Your task to perform on an android device: Look up the best selling books on Goodreads. Image 0: 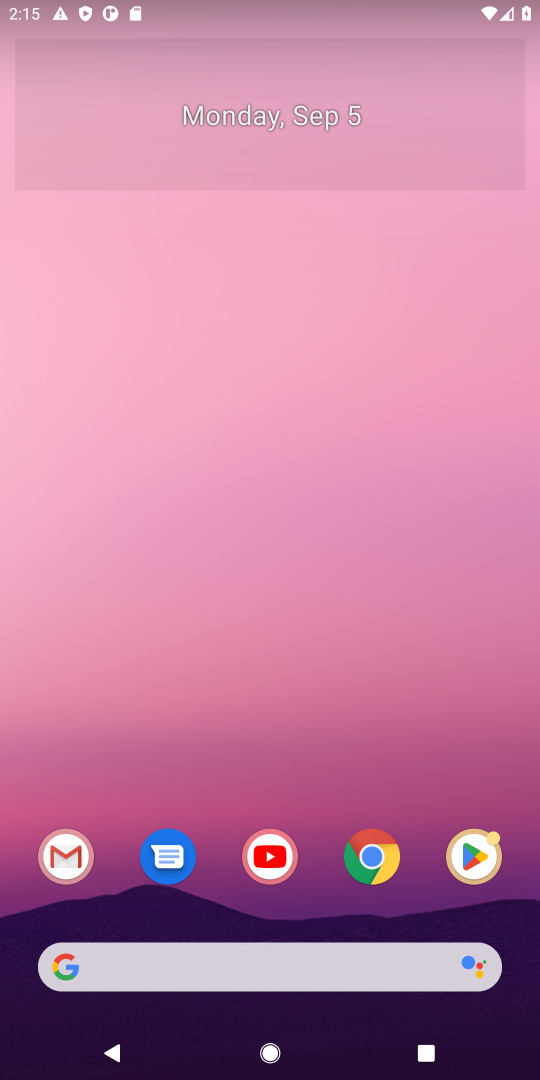
Step 0: press home button
Your task to perform on an android device: Look up the best selling books on Goodreads. Image 1: 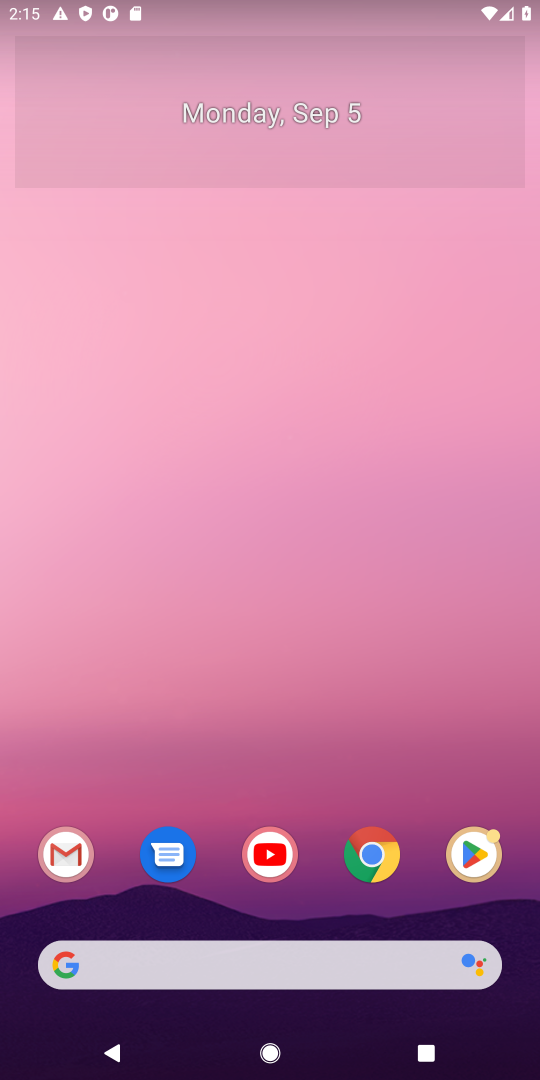
Step 1: click (336, 957)
Your task to perform on an android device: Look up the best selling books on Goodreads. Image 2: 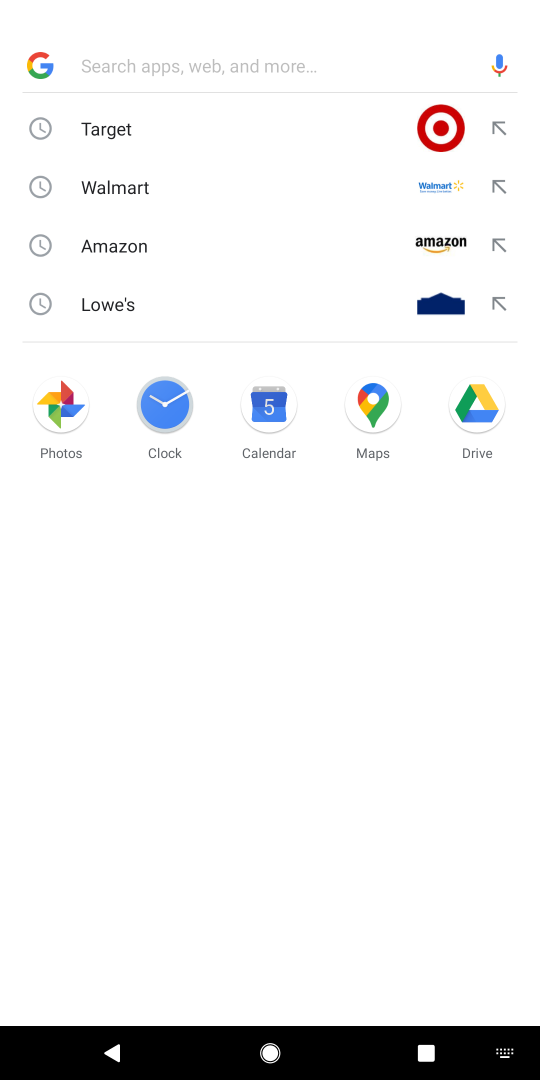
Step 2: type "goodreads"
Your task to perform on an android device: Look up the best selling books on Goodreads. Image 3: 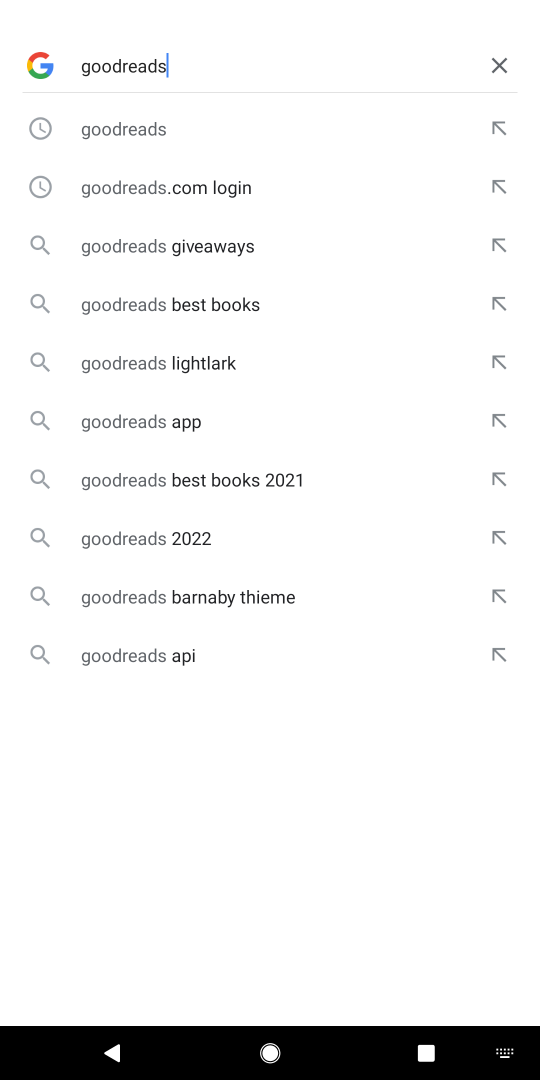
Step 3: press enter
Your task to perform on an android device: Look up the best selling books on Goodreads. Image 4: 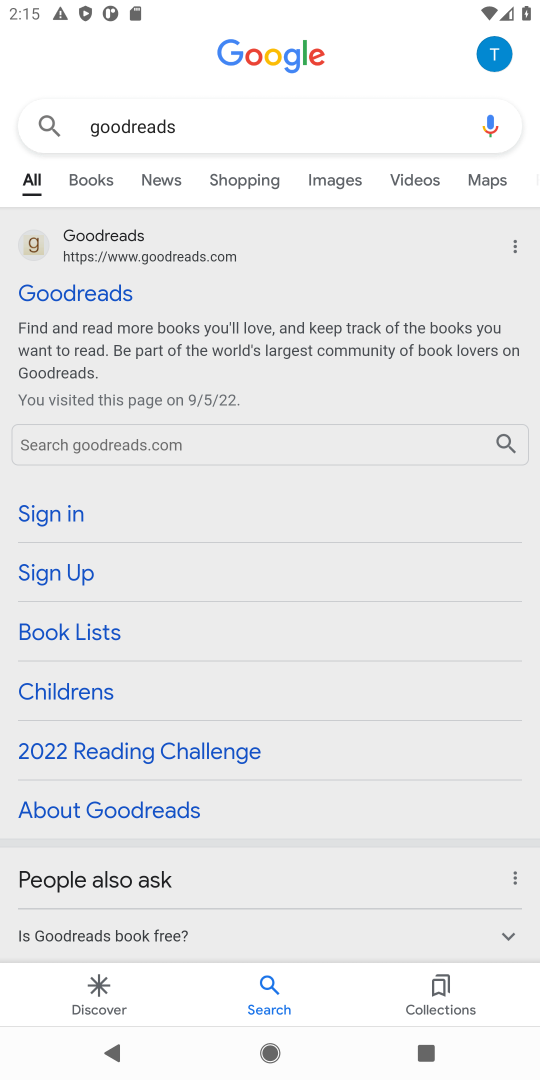
Step 4: click (94, 290)
Your task to perform on an android device: Look up the best selling books on Goodreads. Image 5: 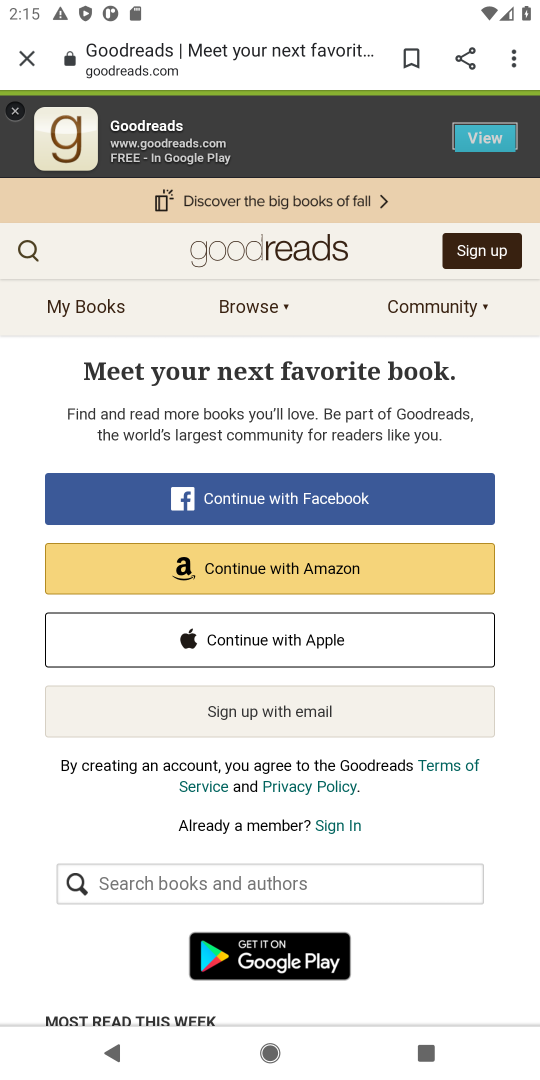
Step 5: click (51, 252)
Your task to perform on an android device: Look up the best selling books on Goodreads. Image 6: 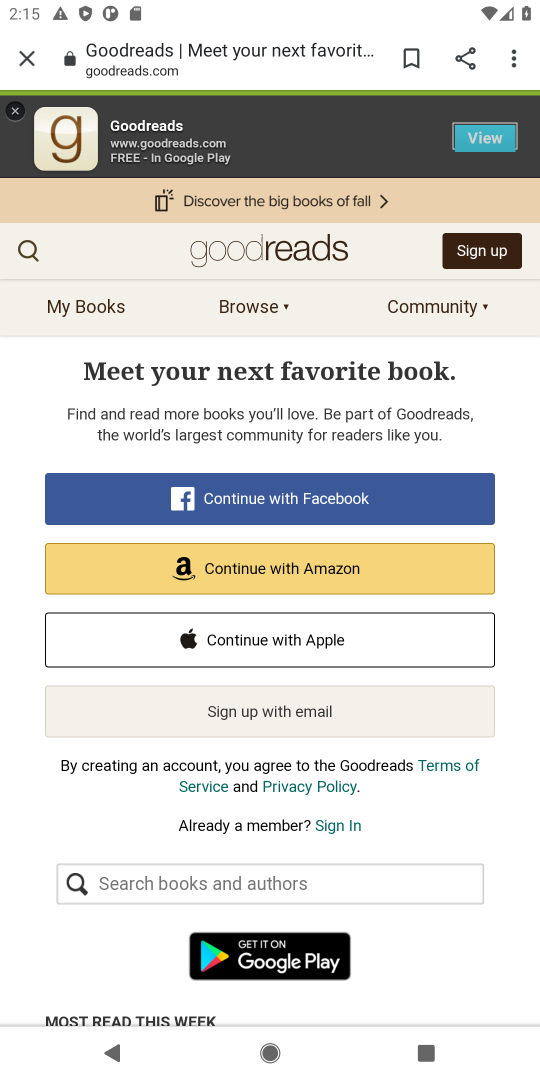
Step 6: click (39, 256)
Your task to perform on an android device: Look up the best selling books on Goodreads. Image 7: 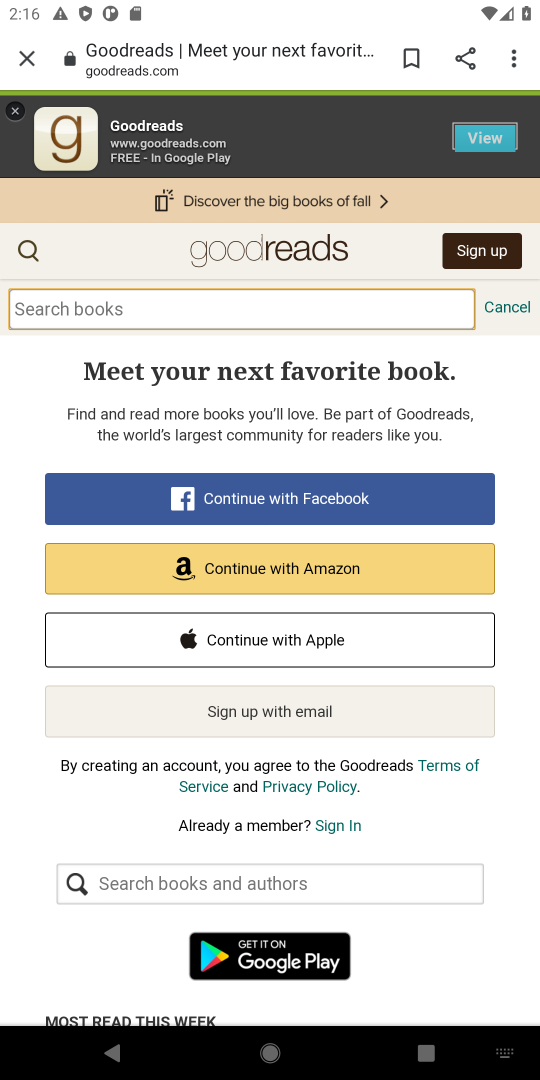
Step 7: press enter
Your task to perform on an android device: Look up the best selling books on Goodreads. Image 8: 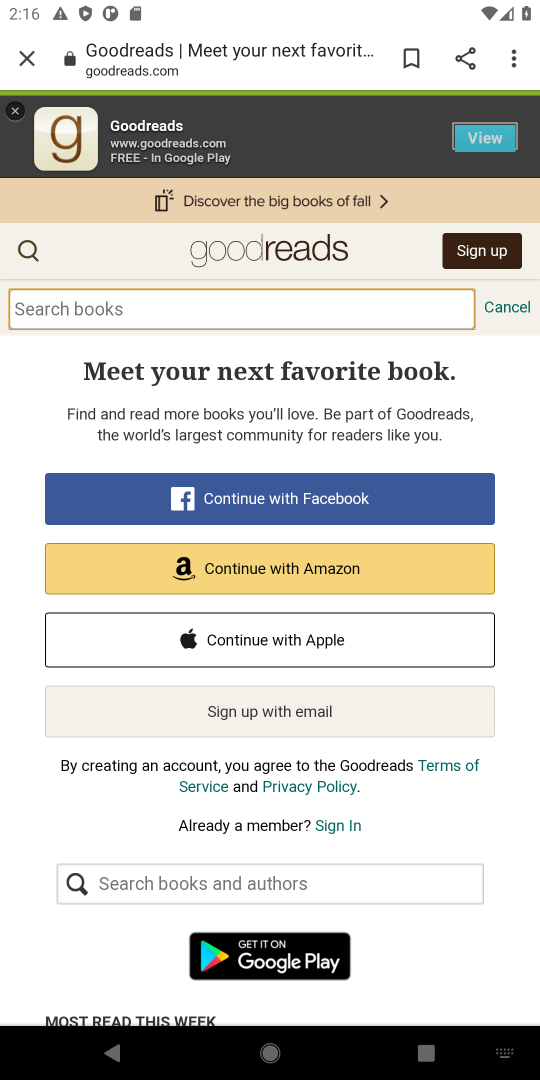
Step 8: type "best selling books"
Your task to perform on an android device: Look up the best selling books on Goodreads. Image 9: 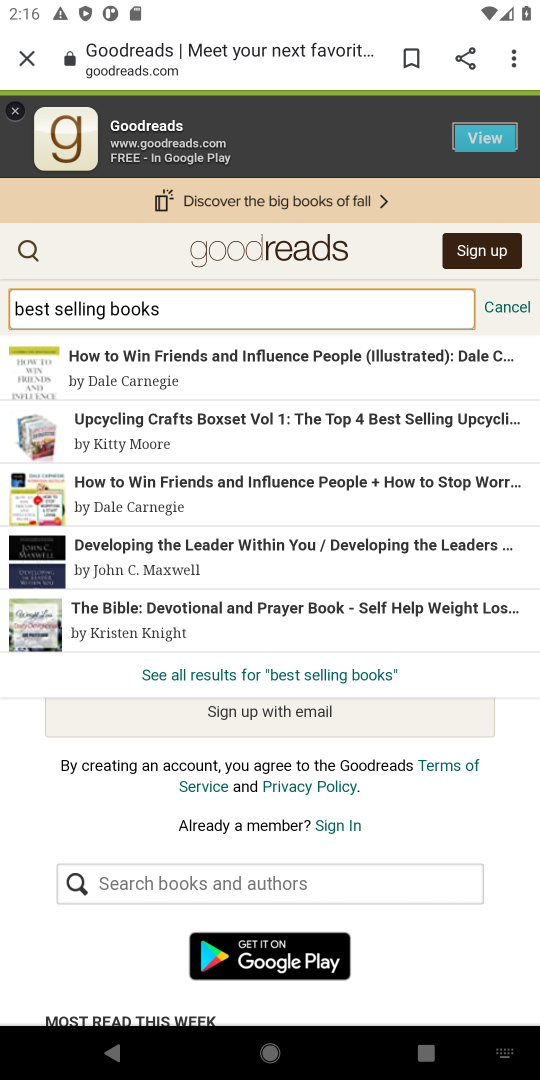
Step 9: task complete